Your task to perform on an android device: turn notification dots off Image 0: 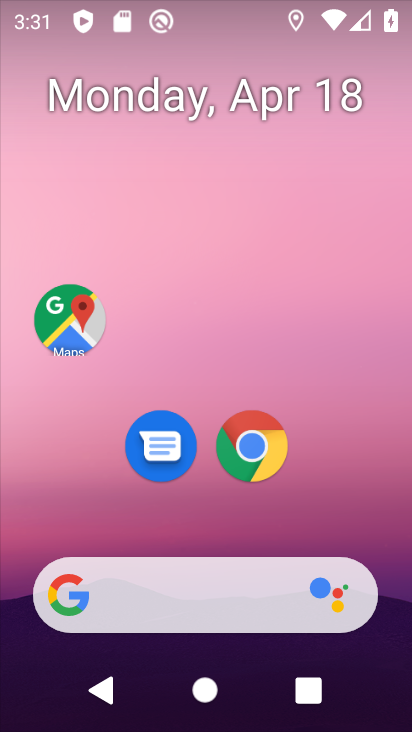
Step 0: drag from (333, 607) to (314, 162)
Your task to perform on an android device: turn notification dots off Image 1: 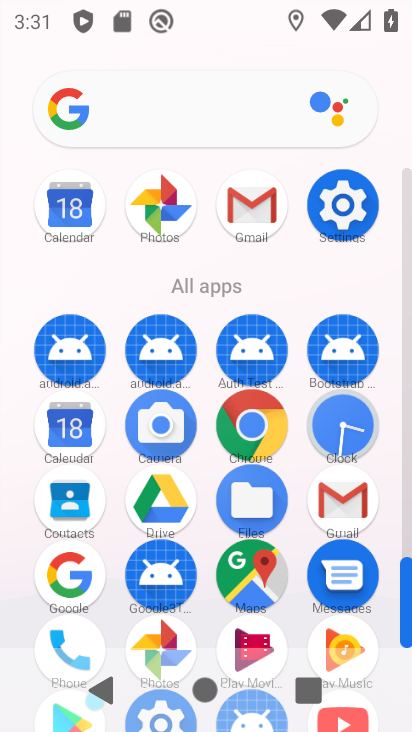
Step 1: click (346, 201)
Your task to perform on an android device: turn notification dots off Image 2: 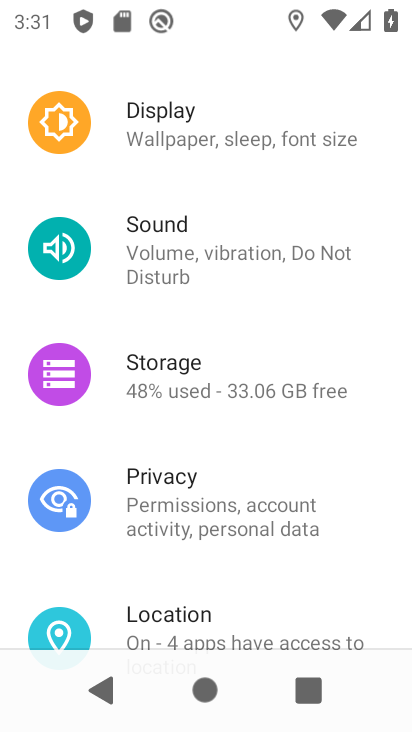
Step 2: drag from (279, 540) to (269, 55)
Your task to perform on an android device: turn notification dots off Image 3: 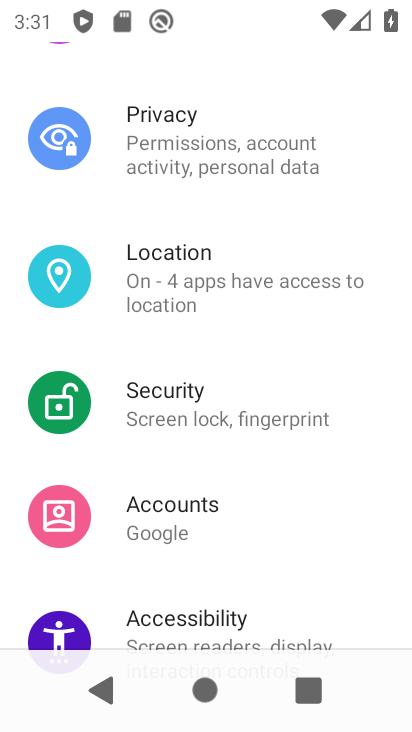
Step 3: drag from (298, 227) to (356, 673)
Your task to perform on an android device: turn notification dots off Image 4: 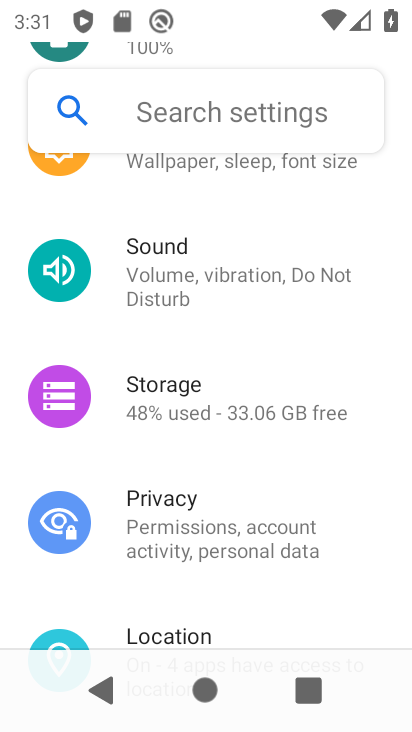
Step 4: drag from (322, 238) to (387, 649)
Your task to perform on an android device: turn notification dots off Image 5: 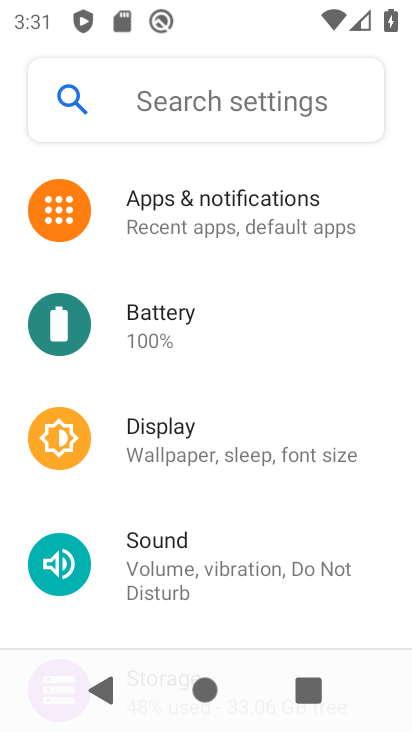
Step 5: click (294, 226)
Your task to perform on an android device: turn notification dots off Image 6: 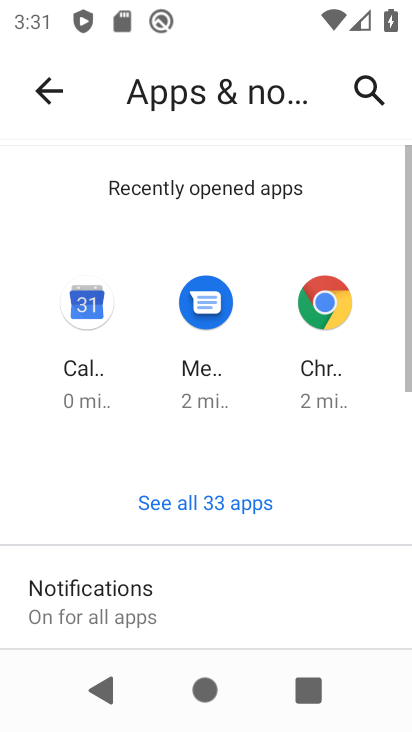
Step 6: click (257, 599)
Your task to perform on an android device: turn notification dots off Image 7: 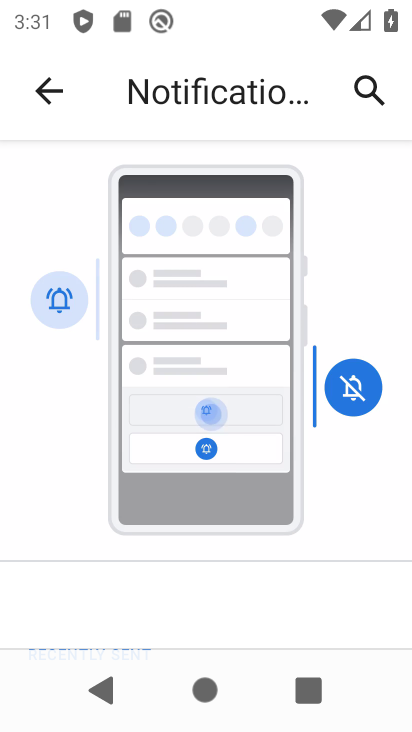
Step 7: drag from (347, 601) to (313, 85)
Your task to perform on an android device: turn notification dots off Image 8: 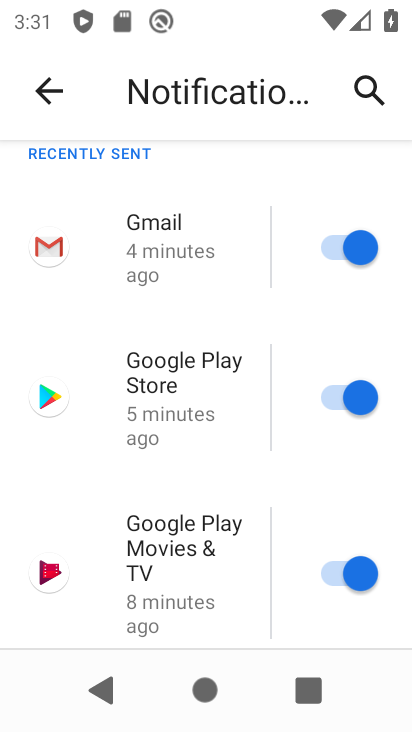
Step 8: drag from (295, 559) to (301, 97)
Your task to perform on an android device: turn notification dots off Image 9: 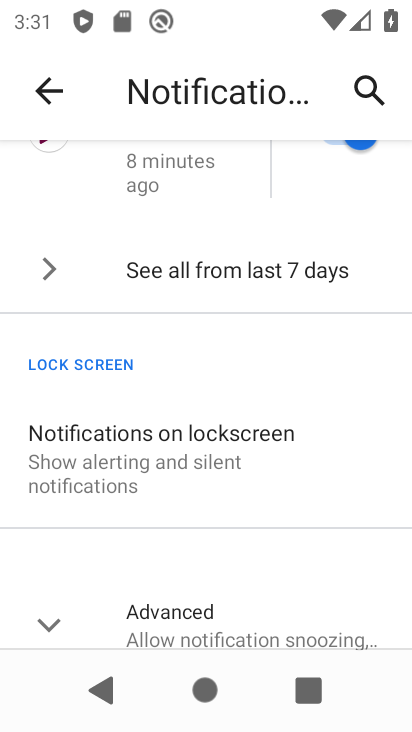
Step 9: click (284, 619)
Your task to perform on an android device: turn notification dots off Image 10: 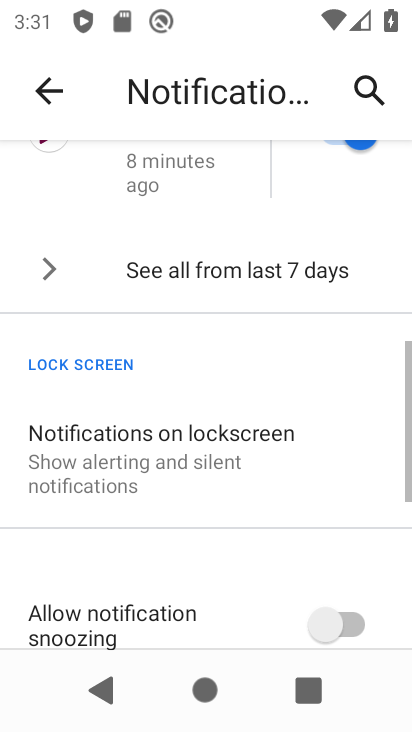
Step 10: drag from (246, 588) to (265, 112)
Your task to perform on an android device: turn notification dots off Image 11: 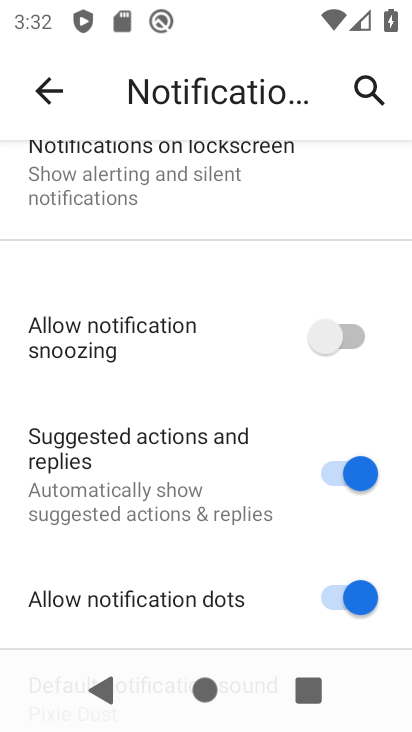
Step 11: click (372, 590)
Your task to perform on an android device: turn notification dots off Image 12: 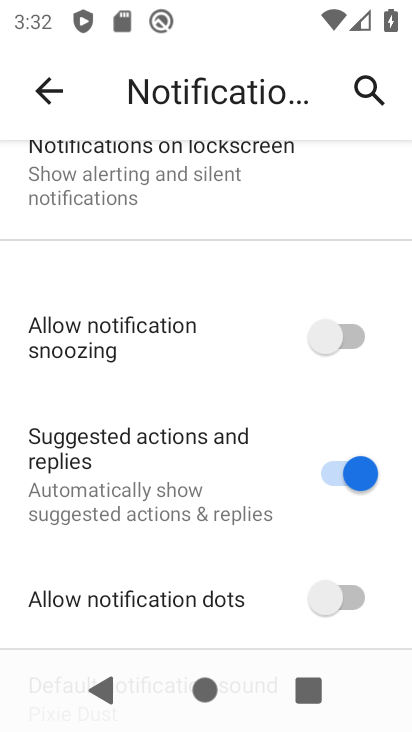
Step 12: task complete